Your task to perform on an android device: clear all cookies in the chrome app Image 0: 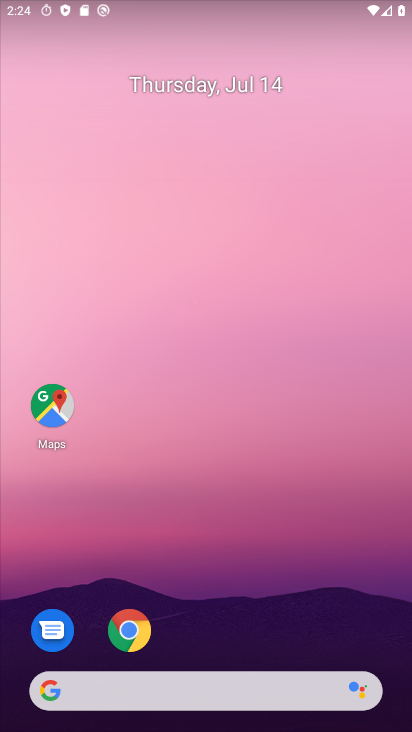
Step 0: click (129, 629)
Your task to perform on an android device: clear all cookies in the chrome app Image 1: 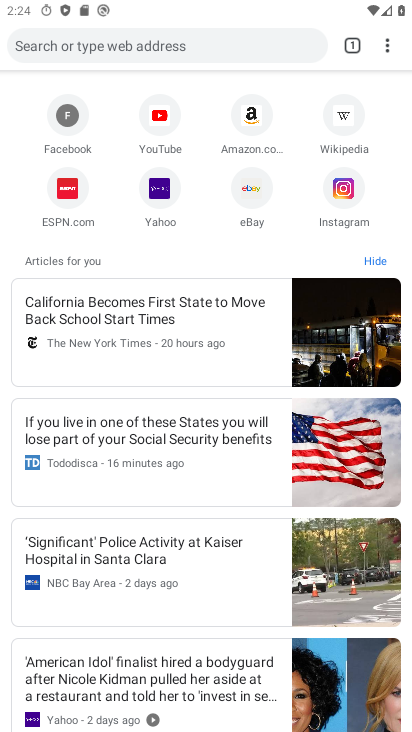
Step 1: click (389, 41)
Your task to perform on an android device: clear all cookies in the chrome app Image 2: 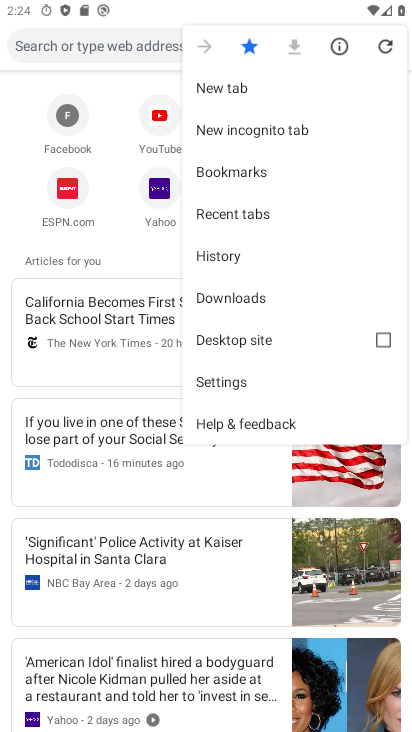
Step 2: click (219, 260)
Your task to perform on an android device: clear all cookies in the chrome app Image 3: 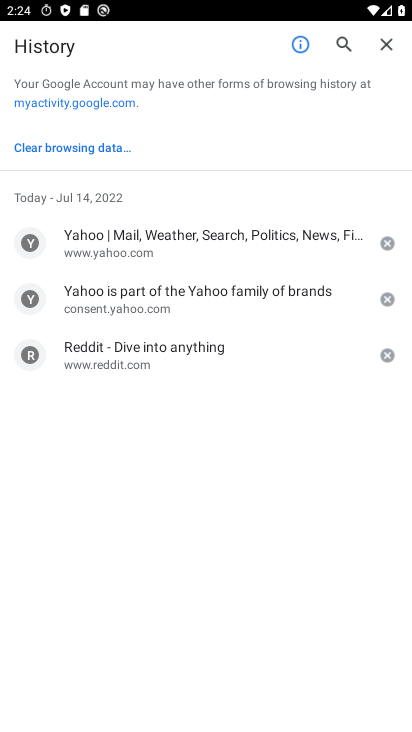
Step 3: click (87, 151)
Your task to perform on an android device: clear all cookies in the chrome app Image 4: 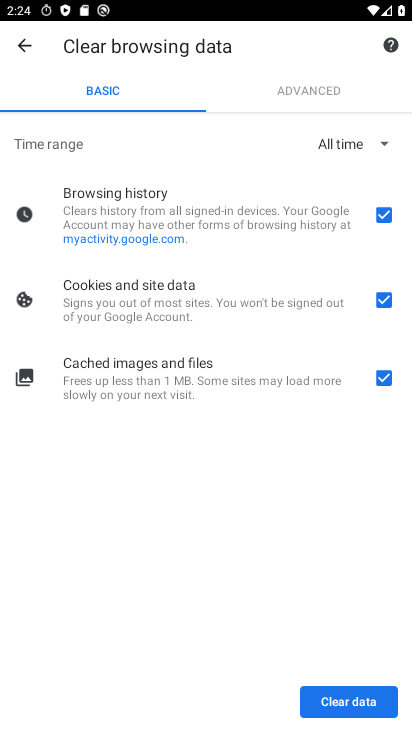
Step 4: click (376, 212)
Your task to perform on an android device: clear all cookies in the chrome app Image 5: 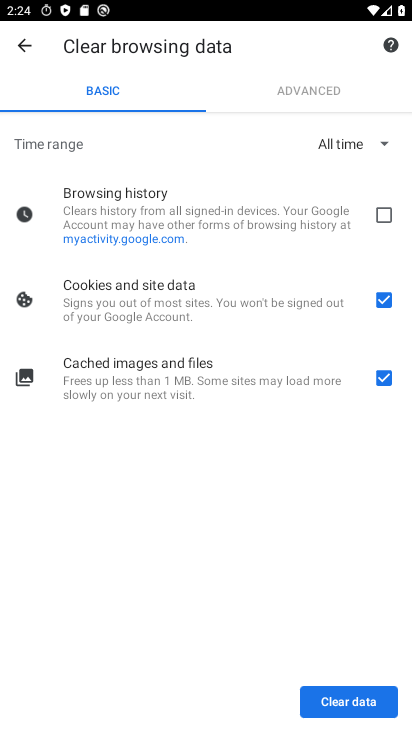
Step 5: click (380, 378)
Your task to perform on an android device: clear all cookies in the chrome app Image 6: 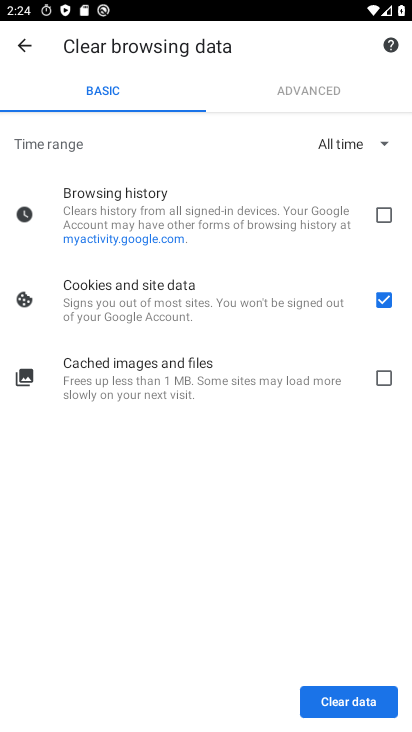
Step 6: click (342, 705)
Your task to perform on an android device: clear all cookies in the chrome app Image 7: 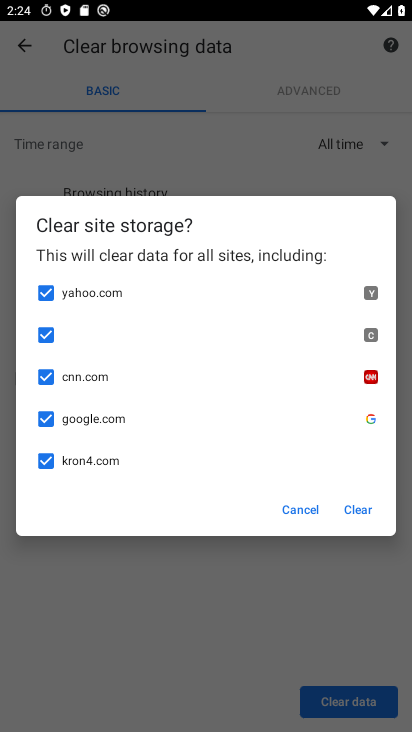
Step 7: click (348, 503)
Your task to perform on an android device: clear all cookies in the chrome app Image 8: 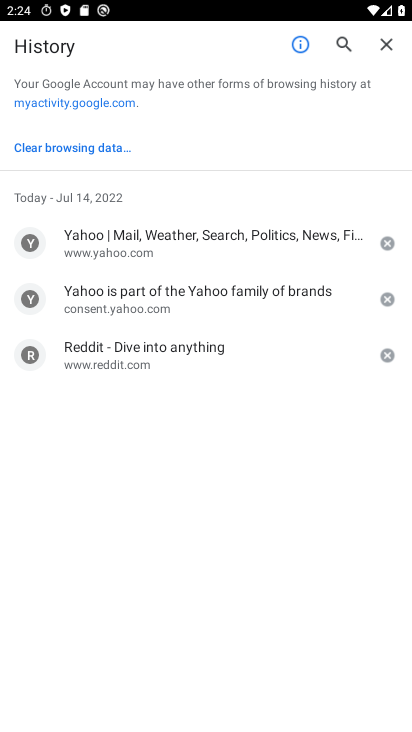
Step 8: task complete